Your task to perform on an android device: turn on location history Image 0: 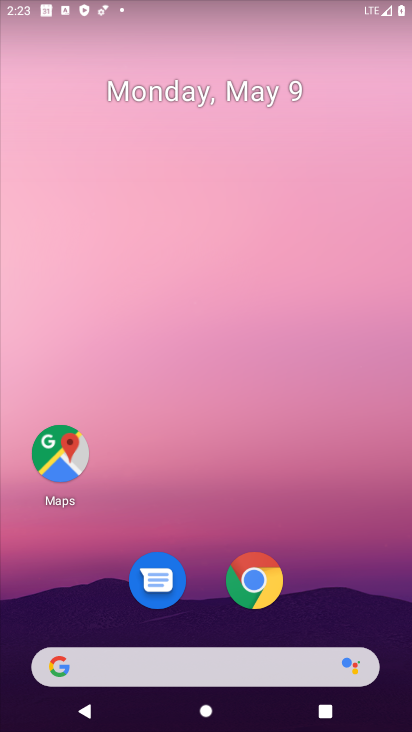
Step 0: drag from (345, 529) to (269, 48)
Your task to perform on an android device: turn on location history Image 1: 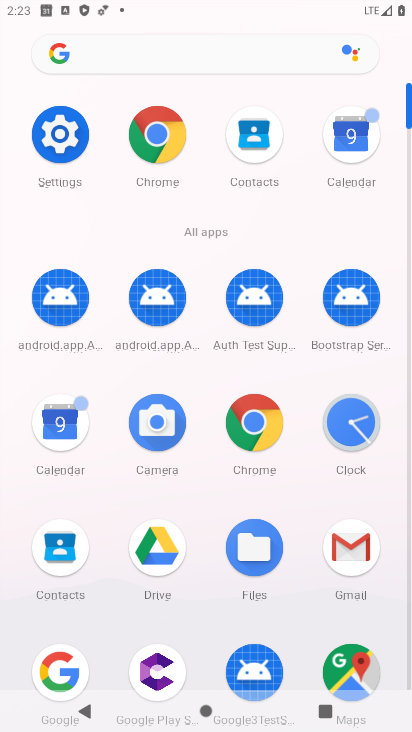
Step 1: click (75, 126)
Your task to perform on an android device: turn on location history Image 2: 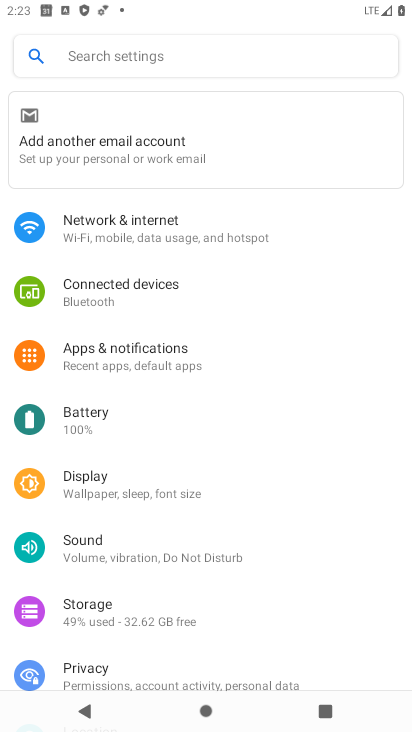
Step 2: drag from (196, 589) to (204, 178)
Your task to perform on an android device: turn on location history Image 3: 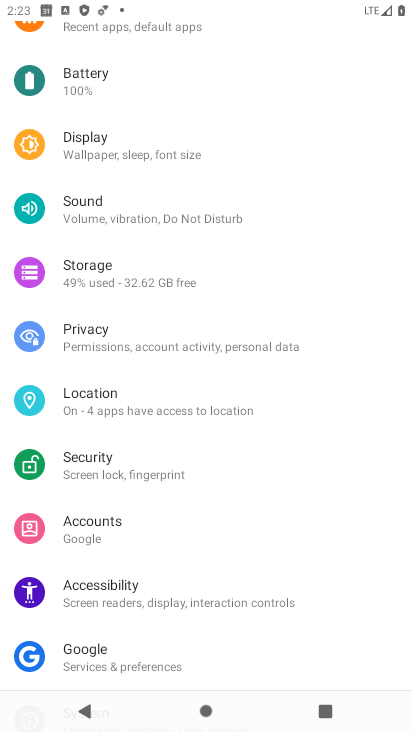
Step 3: click (148, 390)
Your task to perform on an android device: turn on location history Image 4: 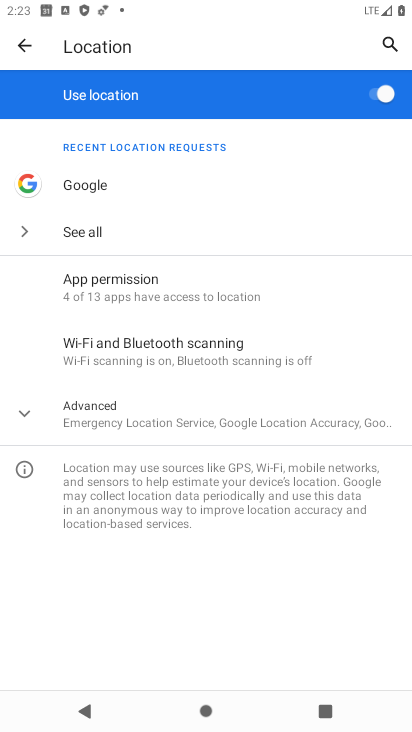
Step 4: click (147, 397)
Your task to perform on an android device: turn on location history Image 5: 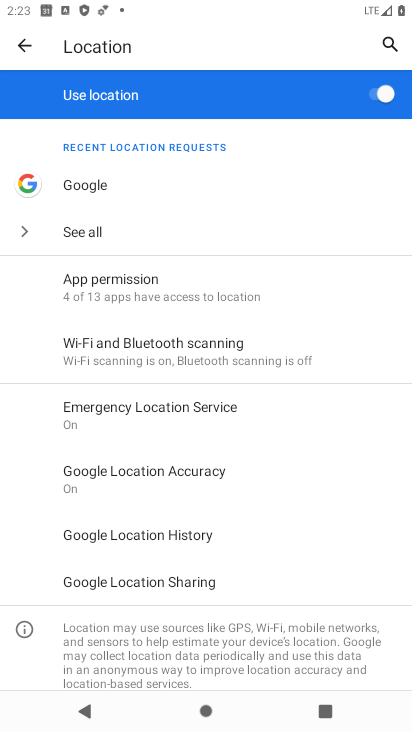
Step 5: click (185, 536)
Your task to perform on an android device: turn on location history Image 6: 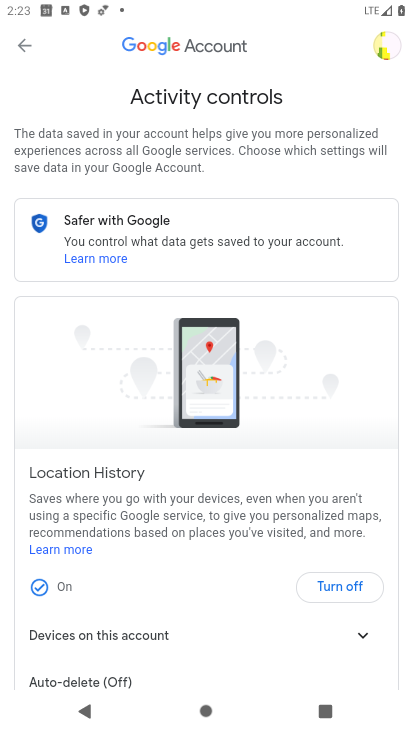
Step 6: task complete